Your task to perform on an android device: turn on translation in the chrome app Image 0: 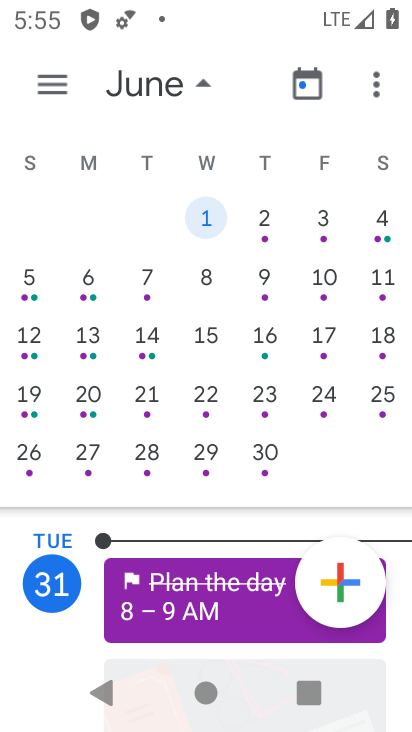
Step 0: press home button
Your task to perform on an android device: turn on translation in the chrome app Image 1: 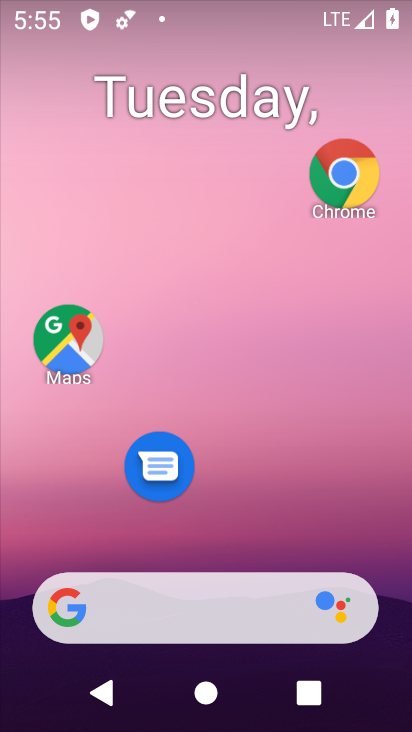
Step 1: click (345, 174)
Your task to perform on an android device: turn on translation in the chrome app Image 2: 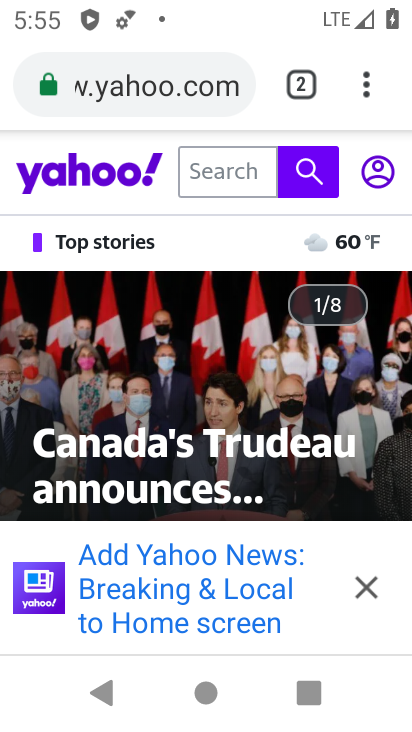
Step 2: drag from (370, 74) to (172, 511)
Your task to perform on an android device: turn on translation in the chrome app Image 3: 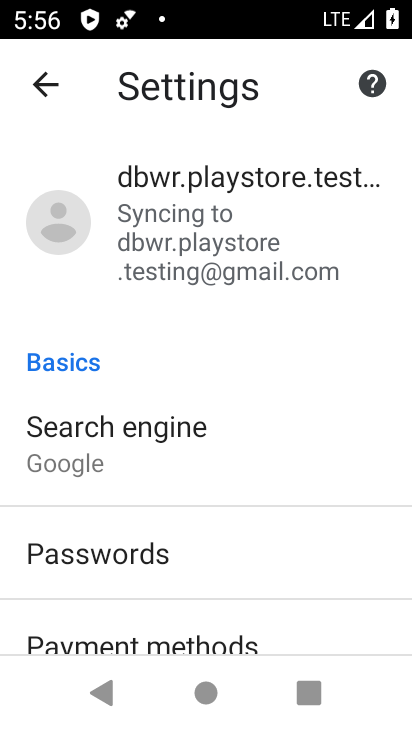
Step 3: drag from (172, 511) to (155, 260)
Your task to perform on an android device: turn on translation in the chrome app Image 4: 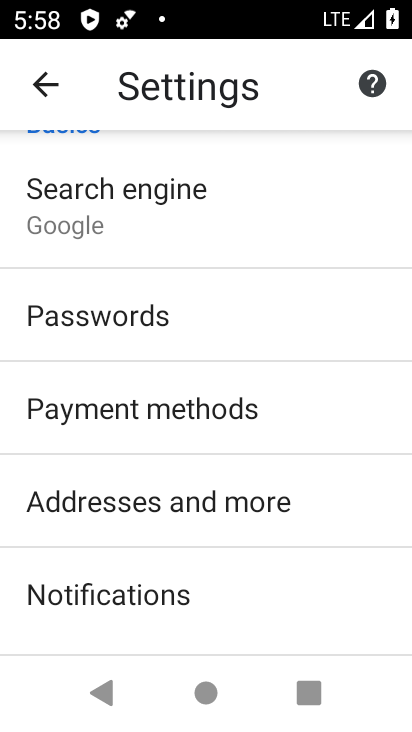
Step 4: drag from (307, 587) to (235, 253)
Your task to perform on an android device: turn on translation in the chrome app Image 5: 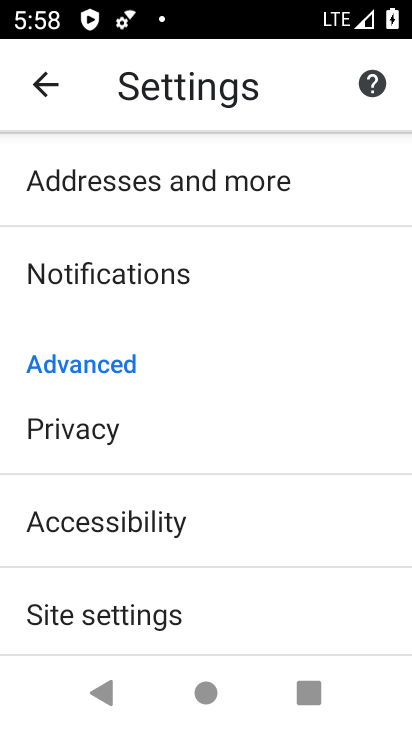
Step 5: drag from (158, 616) to (160, 202)
Your task to perform on an android device: turn on translation in the chrome app Image 6: 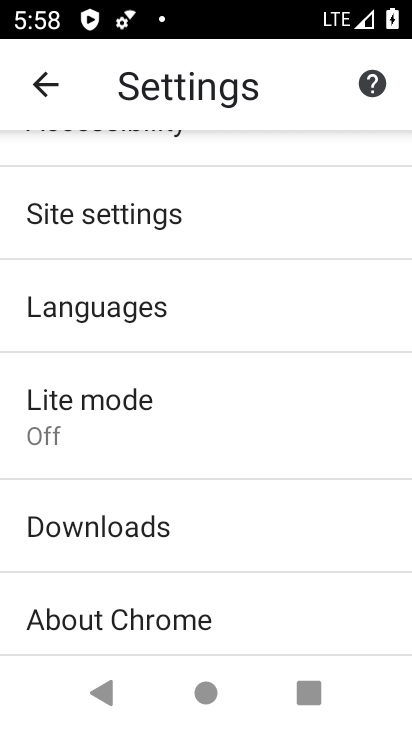
Step 6: click (150, 396)
Your task to perform on an android device: turn on translation in the chrome app Image 7: 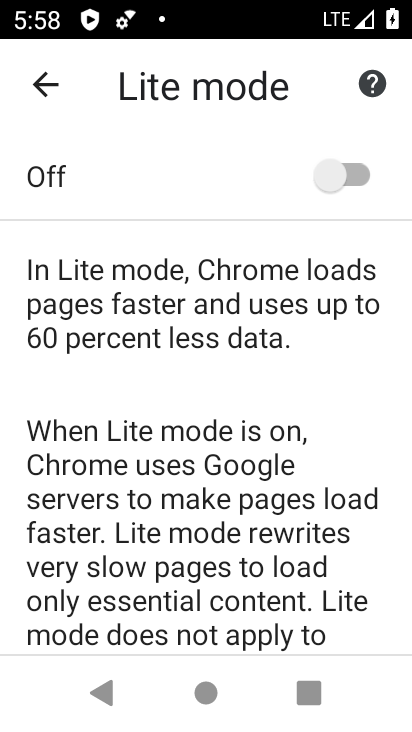
Step 7: click (145, 183)
Your task to perform on an android device: turn on translation in the chrome app Image 8: 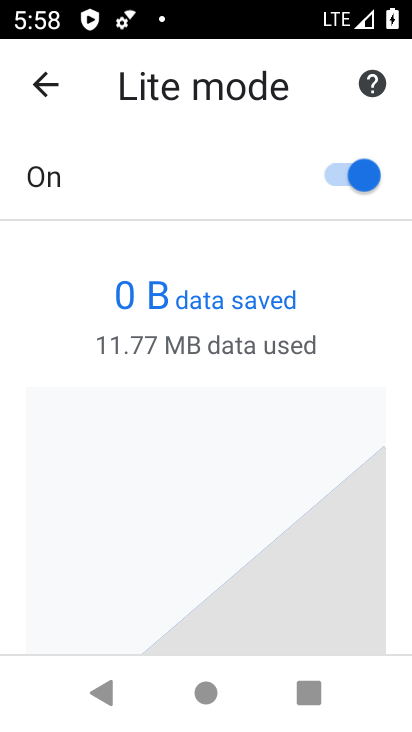
Step 8: task complete